Your task to perform on an android device: Open Reddit.com Image 0: 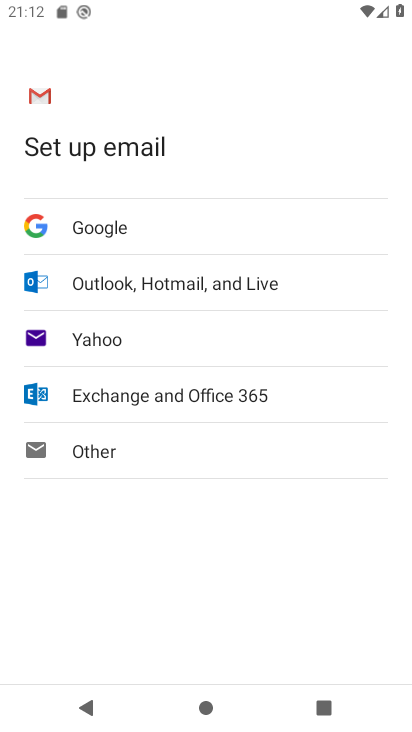
Step 0: press home button
Your task to perform on an android device: Open Reddit.com Image 1: 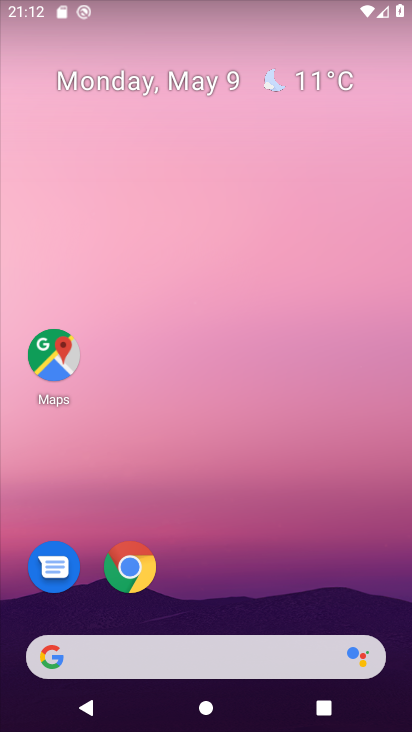
Step 1: click (117, 556)
Your task to perform on an android device: Open Reddit.com Image 2: 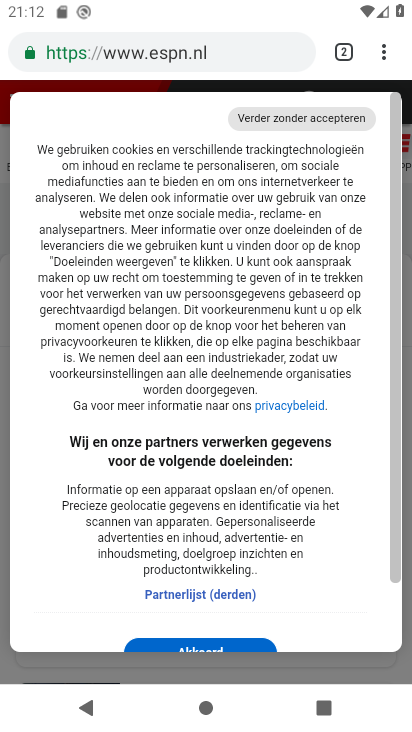
Step 2: click (343, 50)
Your task to perform on an android device: Open Reddit.com Image 3: 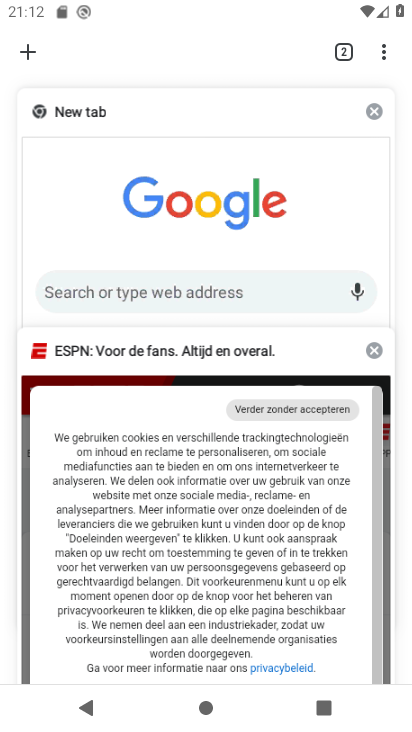
Step 3: click (93, 89)
Your task to perform on an android device: Open Reddit.com Image 4: 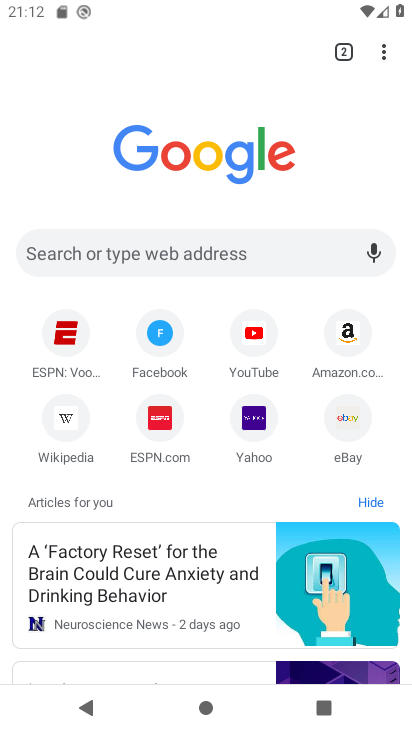
Step 4: click (181, 251)
Your task to perform on an android device: Open Reddit.com Image 5: 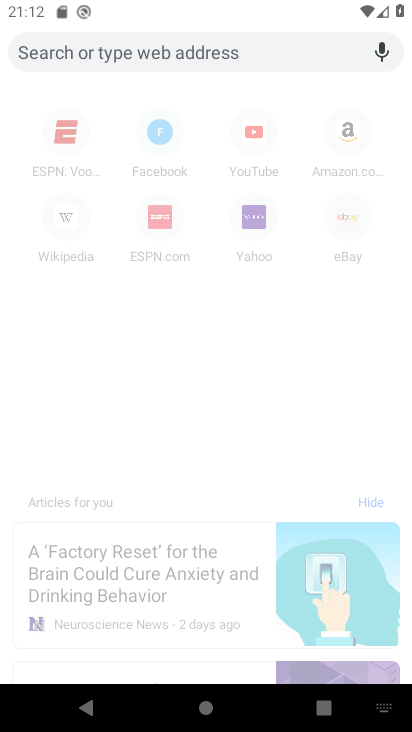
Step 5: type "Reddit.com"
Your task to perform on an android device: Open Reddit.com Image 6: 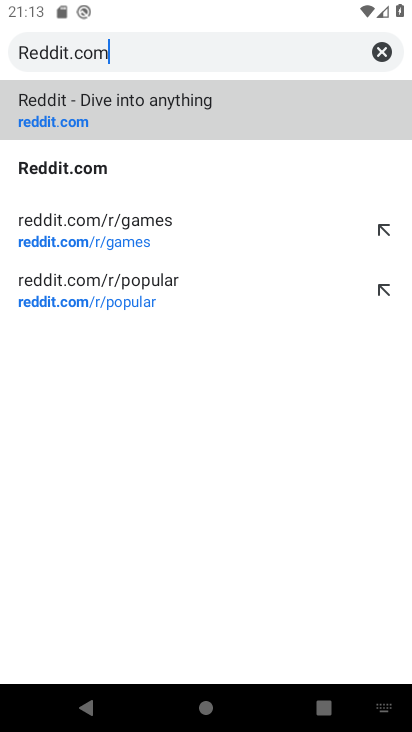
Step 6: click (126, 117)
Your task to perform on an android device: Open Reddit.com Image 7: 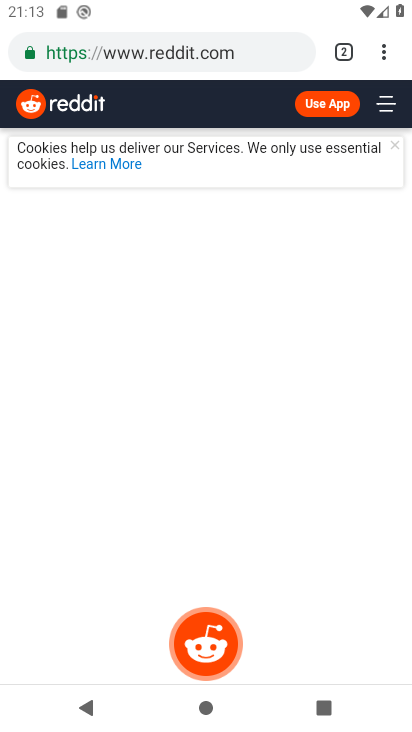
Step 7: task complete